Your task to perform on an android device: Open Chrome and go to settings Image 0: 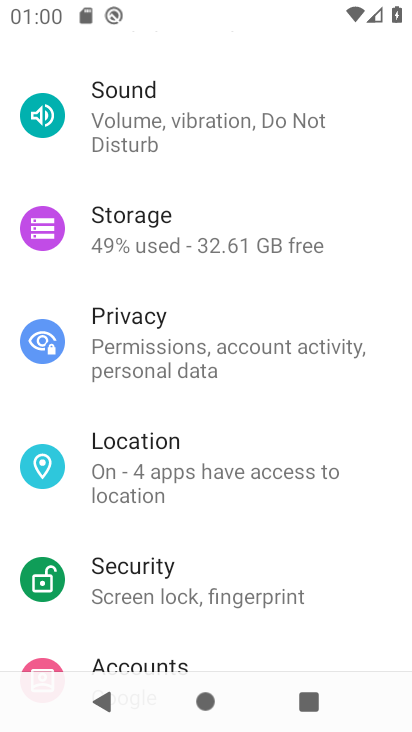
Step 0: press home button
Your task to perform on an android device: Open Chrome and go to settings Image 1: 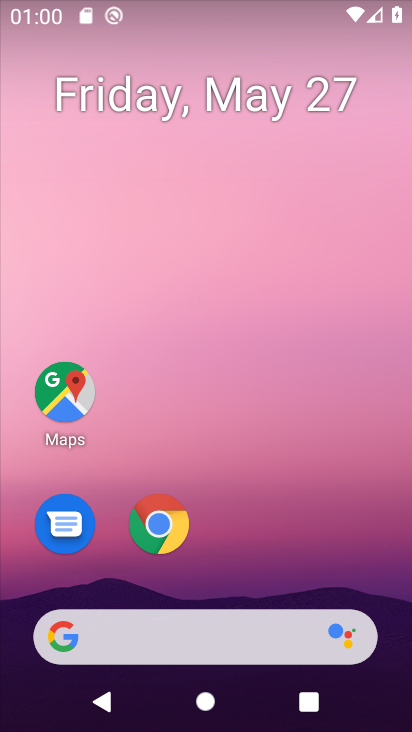
Step 1: click (165, 528)
Your task to perform on an android device: Open Chrome and go to settings Image 2: 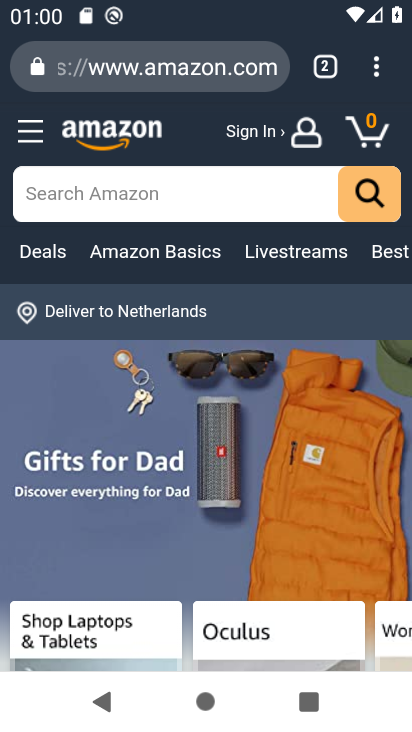
Step 2: click (375, 68)
Your task to perform on an android device: Open Chrome and go to settings Image 3: 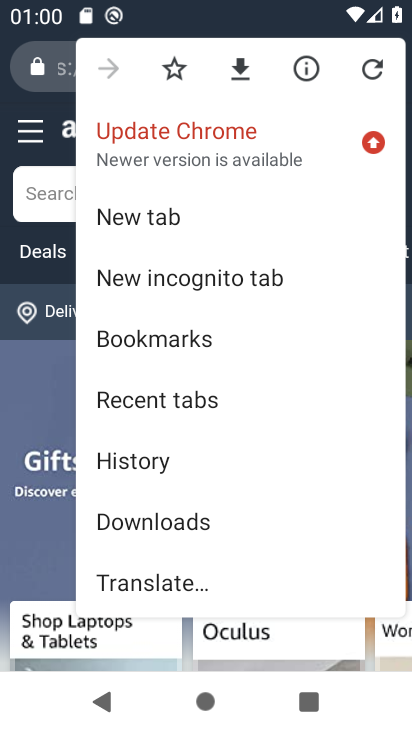
Step 3: drag from (273, 522) to (313, 211)
Your task to perform on an android device: Open Chrome and go to settings Image 4: 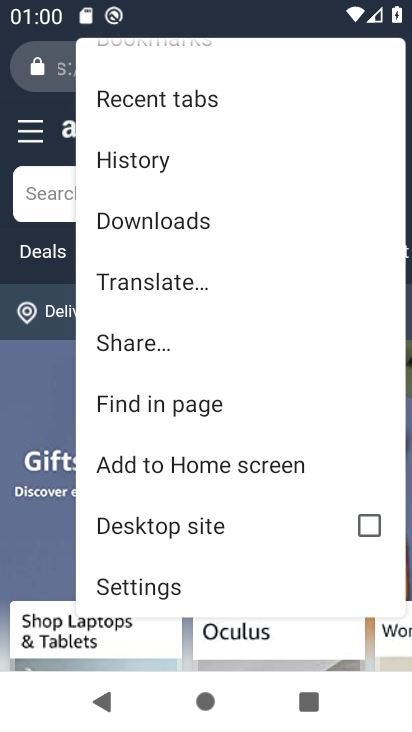
Step 4: click (228, 580)
Your task to perform on an android device: Open Chrome and go to settings Image 5: 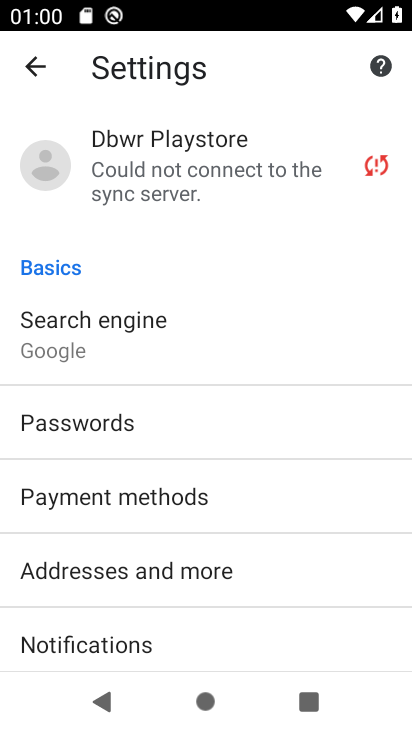
Step 5: task complete